Your task to perform on an android device: check storage Image 0: 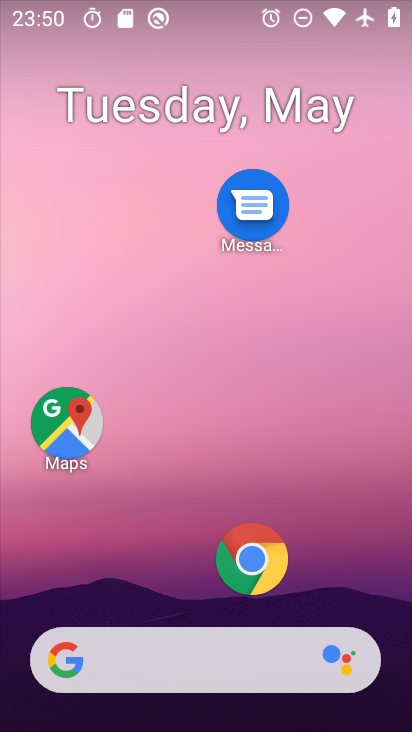
Step 0: drag from (194, 612) to (183, 261)
Your task to perform on an android device: check storage Image 1: 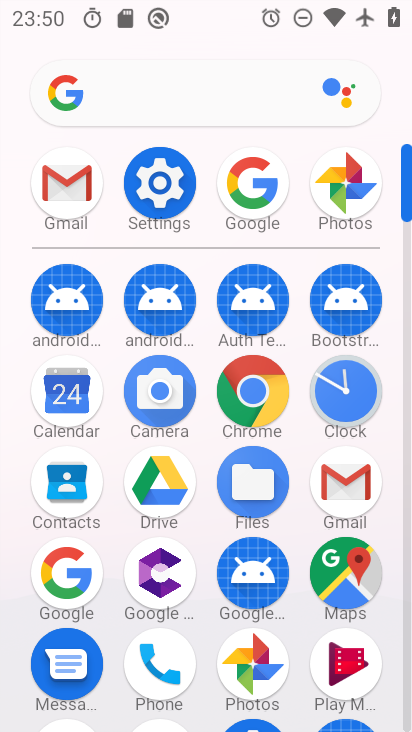
Step 1: click (164, 209)
Your task to perform on an android device: check storage Image 2: 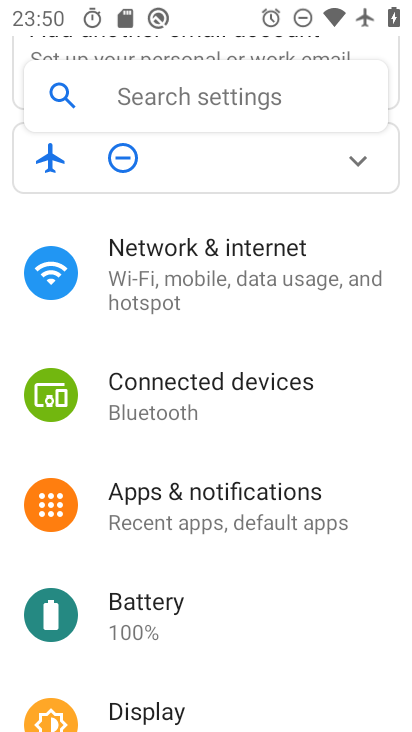
Step 2: drag from (175, 691) to (181, 337)
Your task to perform on an android device: check storage Image 3: 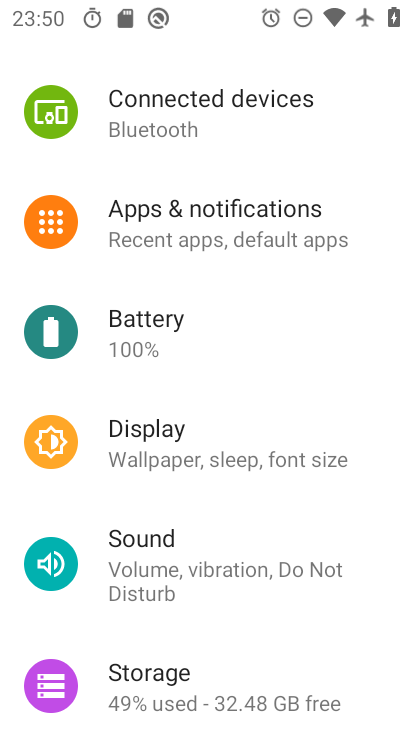
Step 3: drag from (209, 657) to (215, 355)
Your task to perform on an android device: check storage Image 4: 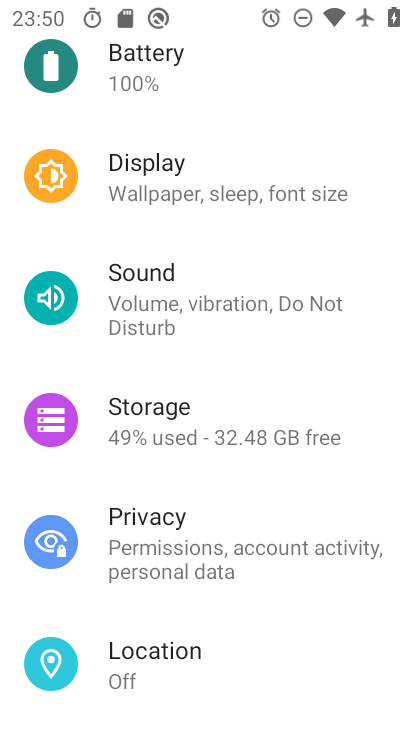
Step 4: click (187, 413)
Your task to perform on an android device: check storage Image 5: 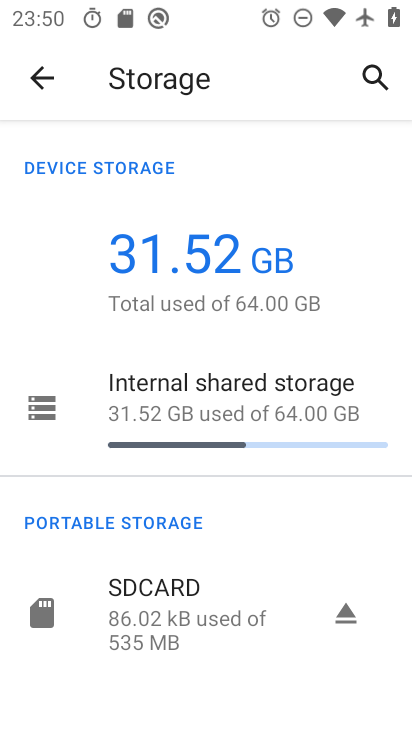
Step 5: task complete